Your task to perform on an android device: turn on javascript in the chrome app Image 0: 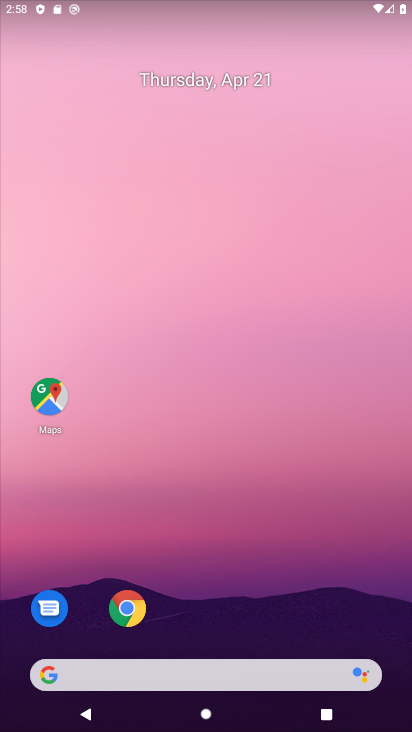
Step 0: click (134, 603)
Your task to perform on an android device: turn on javascript in the chrome app Image 1: 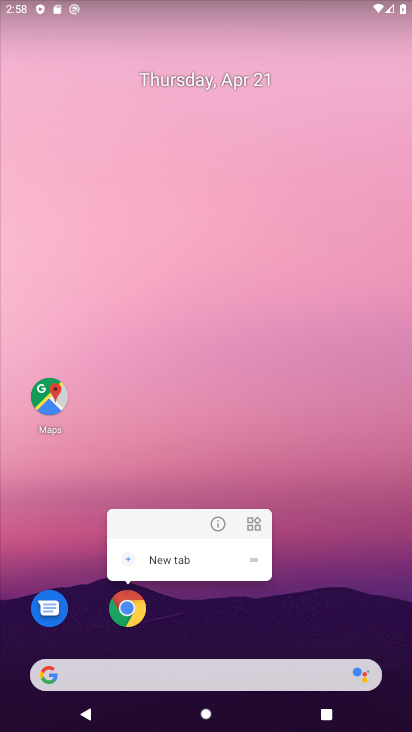
Step 1: click (131, 620)
Your task to perform on an android device: turn on javascript in the chrome app Image 2: 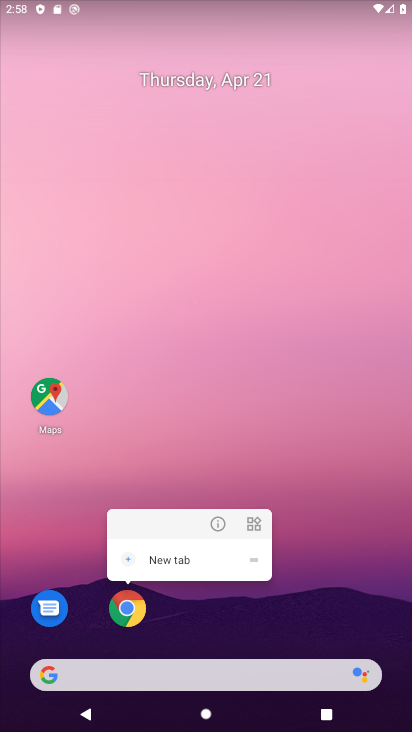
Step 2: click (130, 621)
Your task to perform on an android device: turn on javascript in the chrome app Image 3: 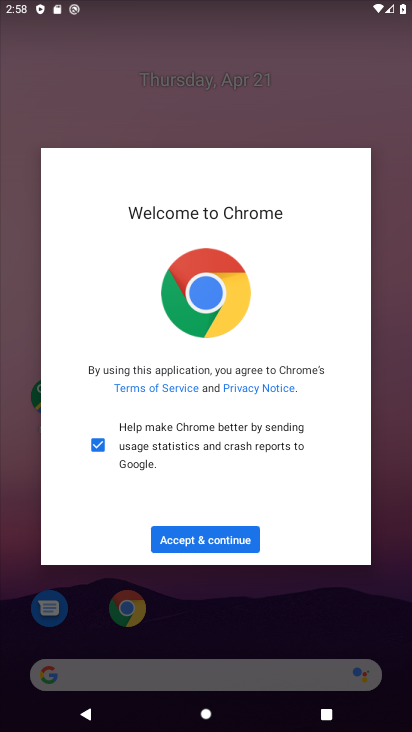
Step 3: click (126, 619)
Your task to perform on an android device: turn on javascript in the chrome app Image 4: 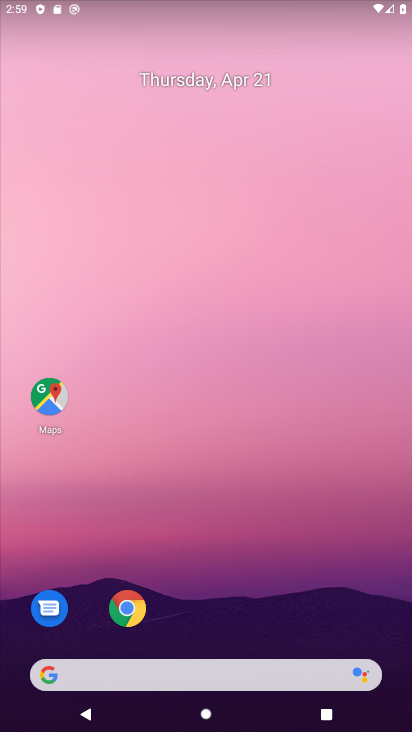
Step 4: click (117, 611)
Your task to perform on an android device: turn on javascript in the chrome app Image 5: 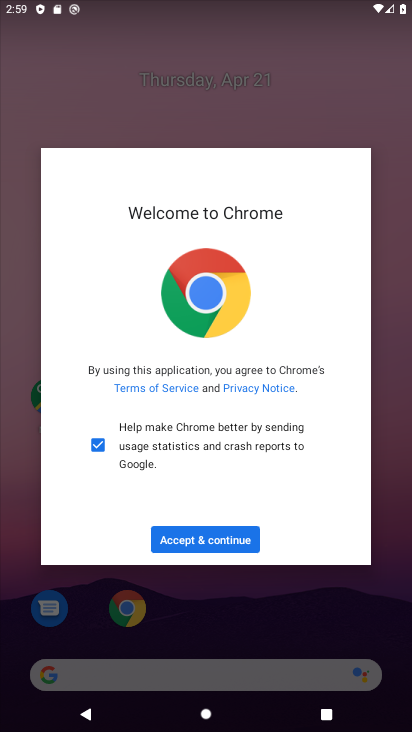
Step 5: click (200, 540)
Your task to perform on an android device: turn on javascript in the chrome app Image 6: 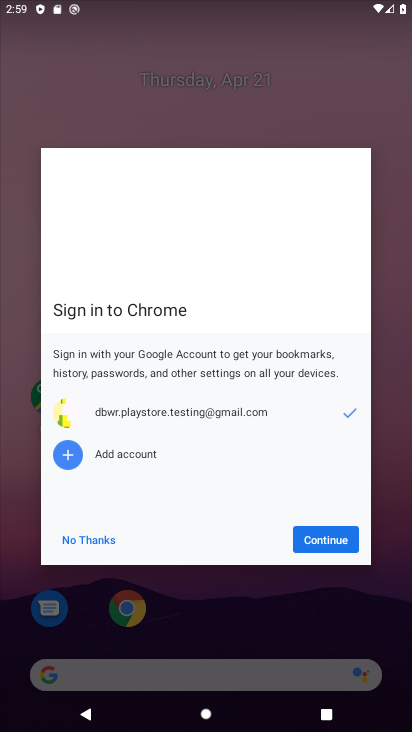
Step 6: click (314, 542)
Your task to perform on an android device: turn on javascript in the chrome app Image 7: 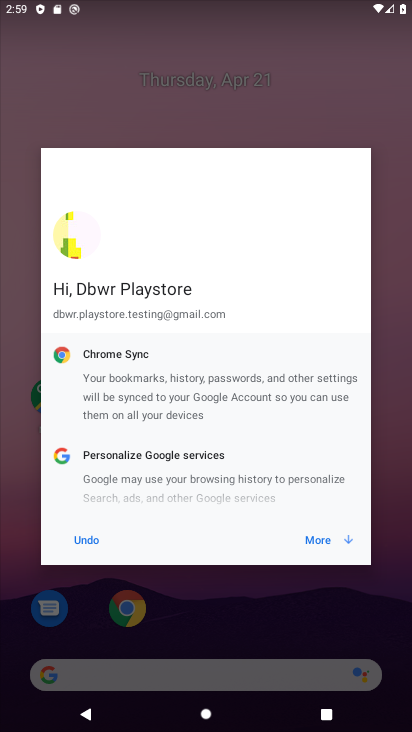
Step 7: click (314, 542)
Your task to perform on an android device: turn on javascript in the chrome app Image 8: 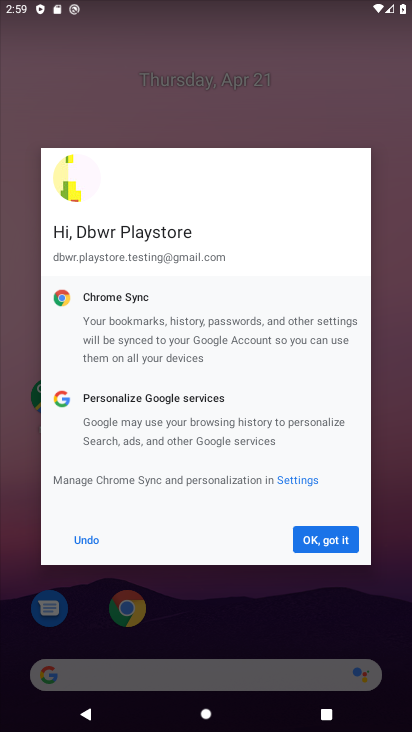
Step 8: click (314, 542)
Your task to perform on an android device: turn on javascript in the chrome app Image 9: 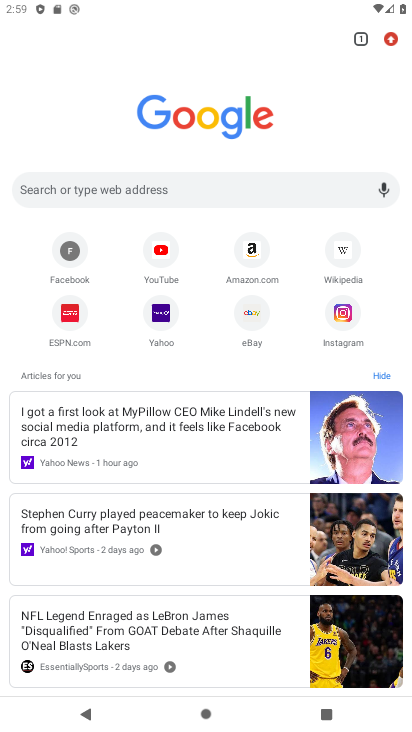
Step 9: click (403, 72)
Your task to perform on an android device: turn on javascript in the chrome app Image 10: 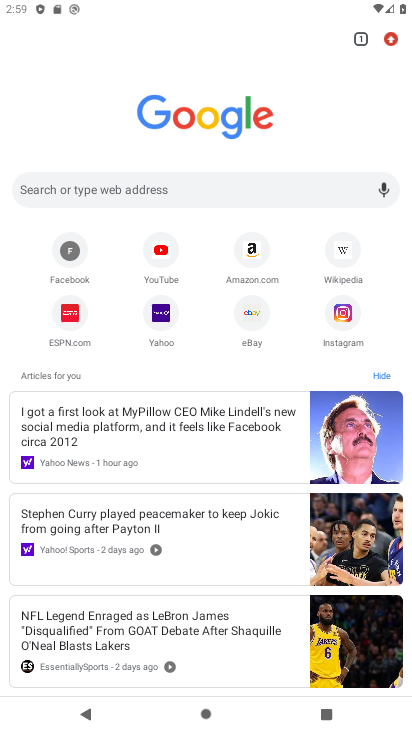
Step 10: click (382, 38)
Your task to perform on an android device: turn on javascript in the chrome app Image 11: 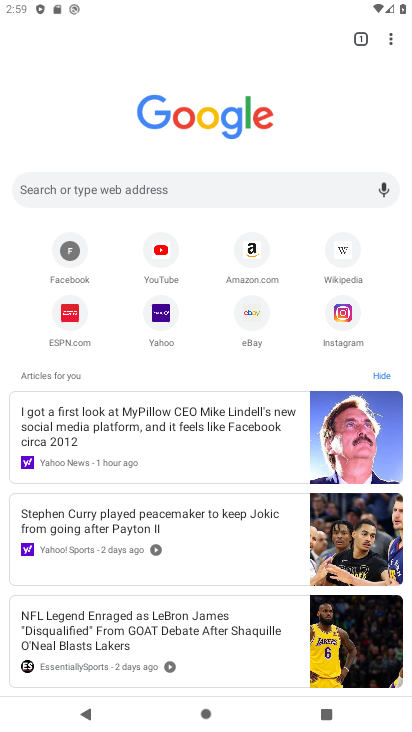
Step 11: click (393, 37)
Your task to perform on an android device: turn on javascript in the chrome app Image 12: 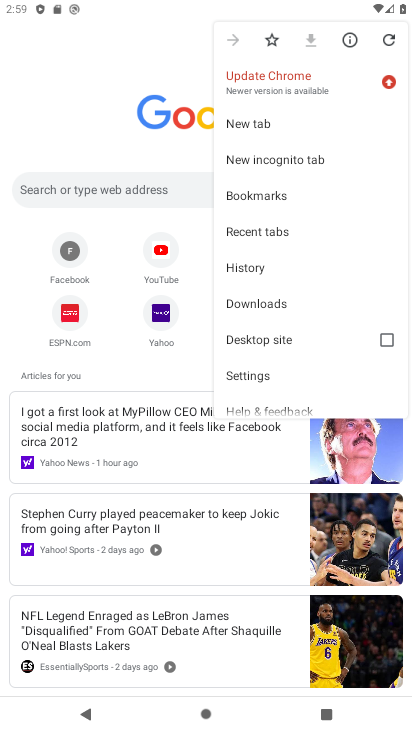
Step 12: click (256, 374)
Your task to perform on an android device: turn on javascript in the chrome app Image 13: 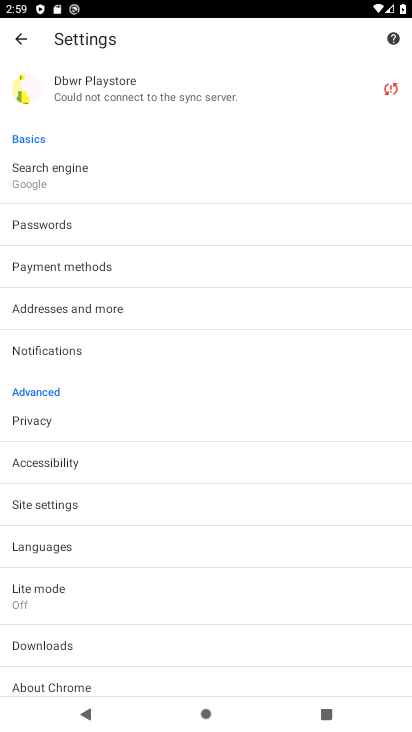
Step 13: drag from (109, 629) to (198, 222)
Your task to perform on an android device: turn on javascript in the chrome app Image 14: 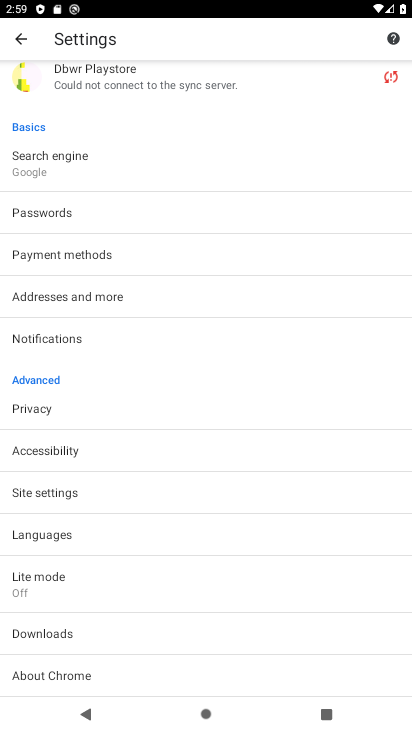
Step 14: click (54, 491)
Your task to perform on an android device: turn on javascript in the chrome app Image 15: 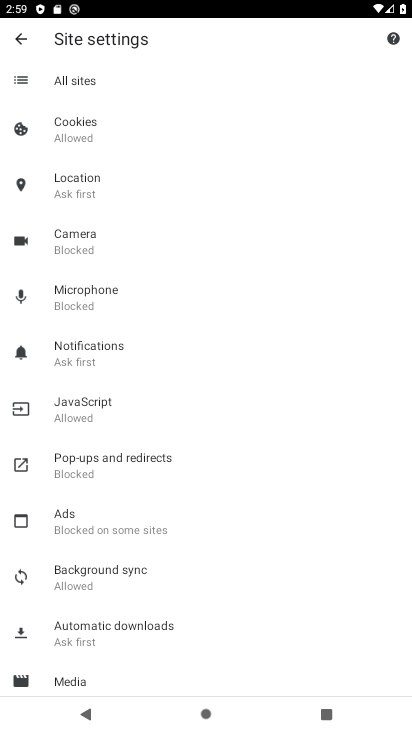
Step 15: click (78, 406)
Your task to perform on an android device: turn on javascript in the chrome app Image 16: 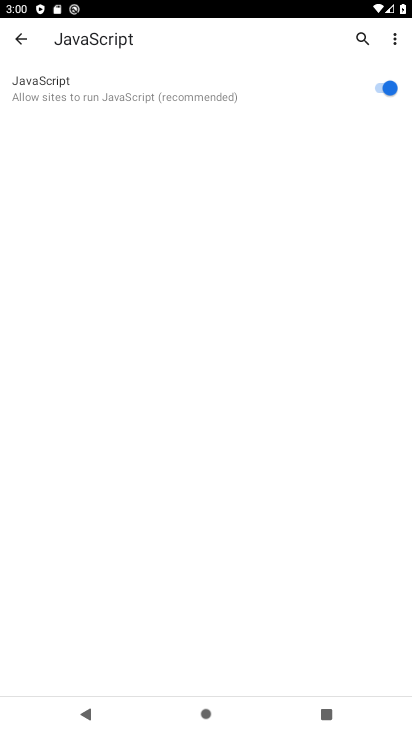
Step 16: task complete